Your task to perform on an android device: Open Google Chrome Image 0: 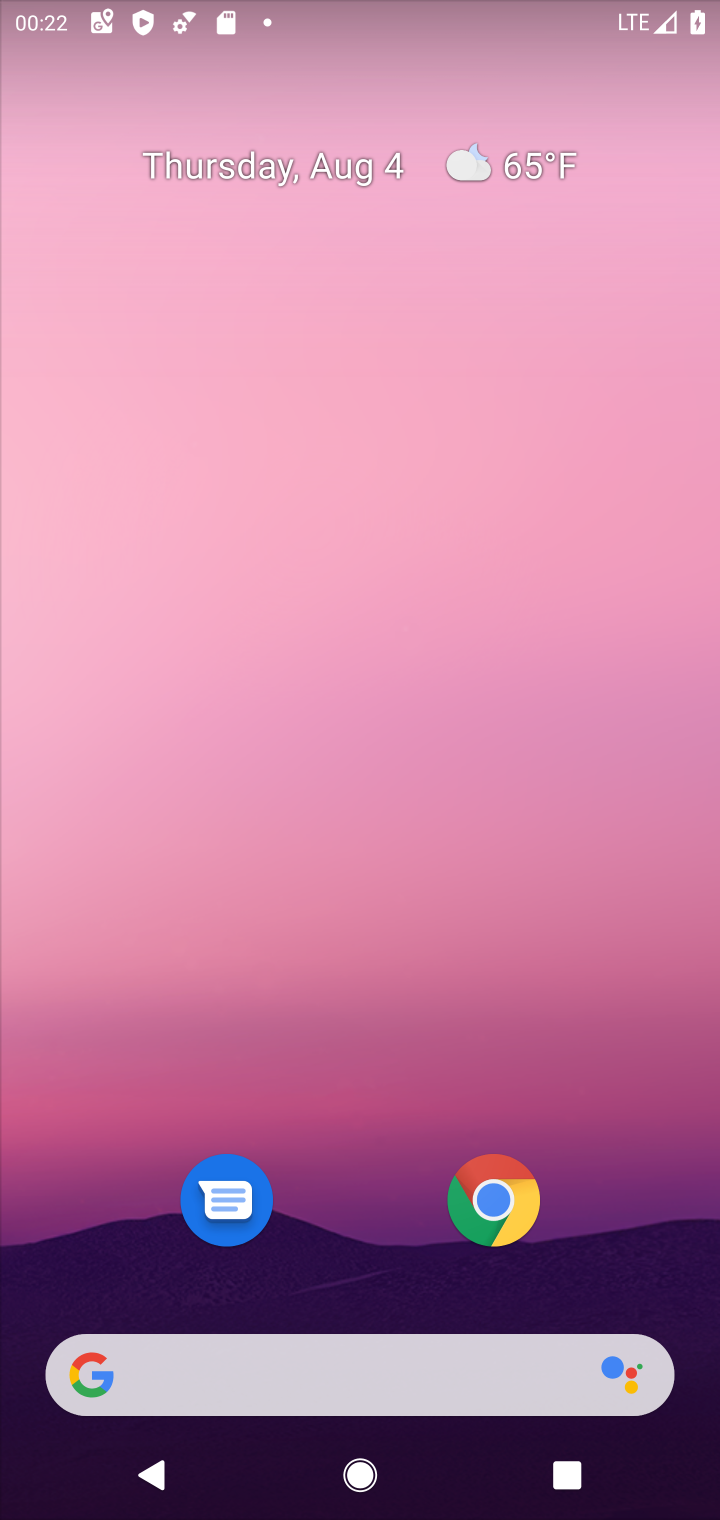
Step 0: press home button
Your task to perform on an android device: Open Google Chrome Image 1: 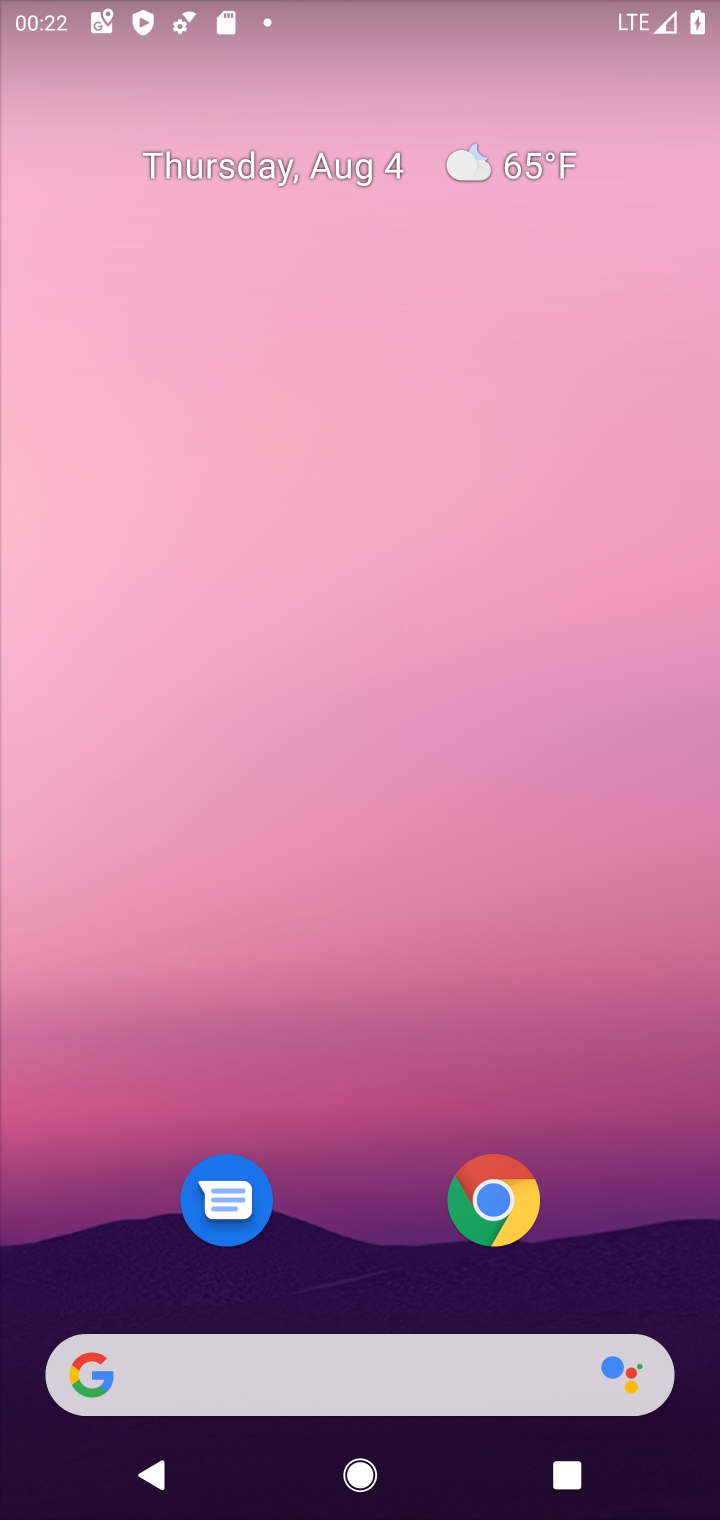
Step 1: press home button
Your task to perform on an android device: Open Google Chrome Image 2: 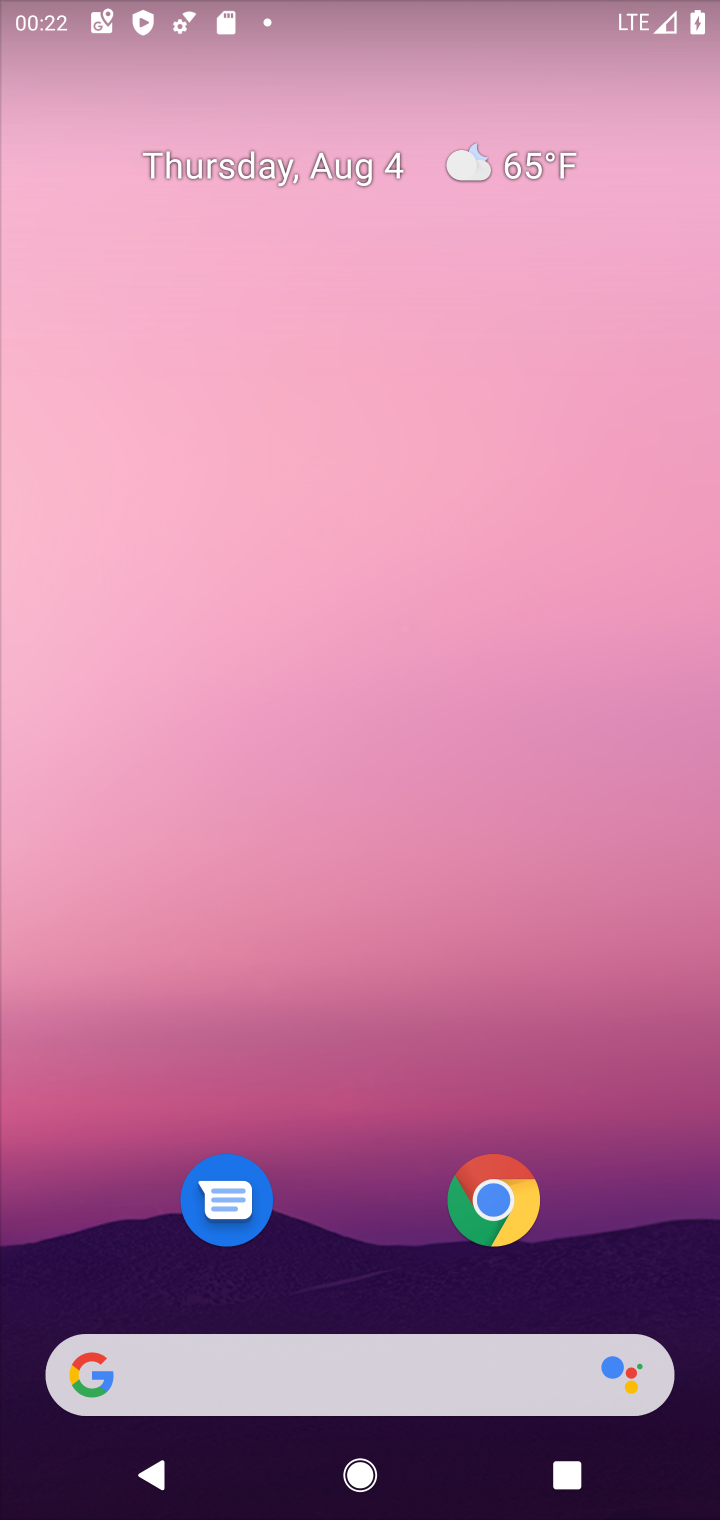
Step 2: press home button
Your task to perform on an android device: Open Google Chrome Image 3: 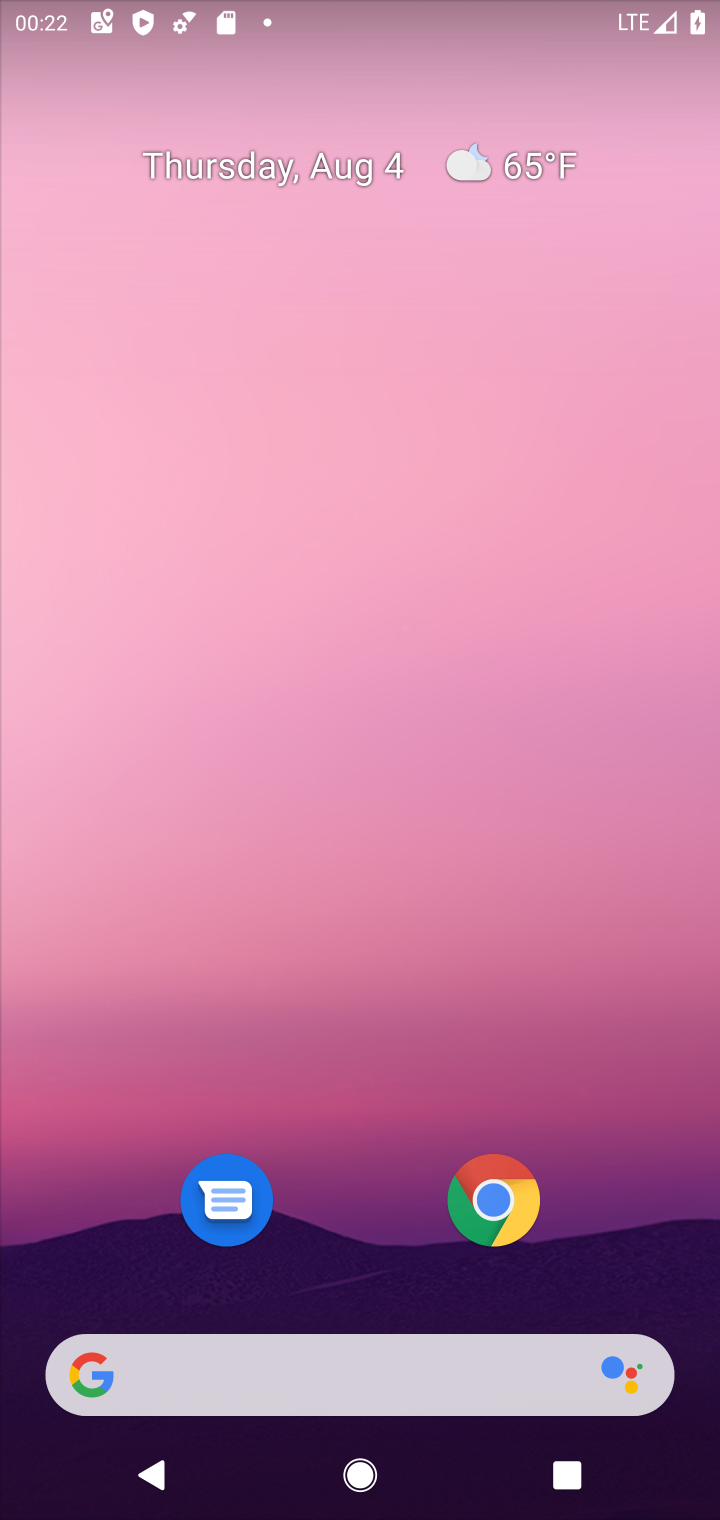
Step 3: click (506, 1202)
Your task to perform on an android device: Open Google Chrome Image 4: 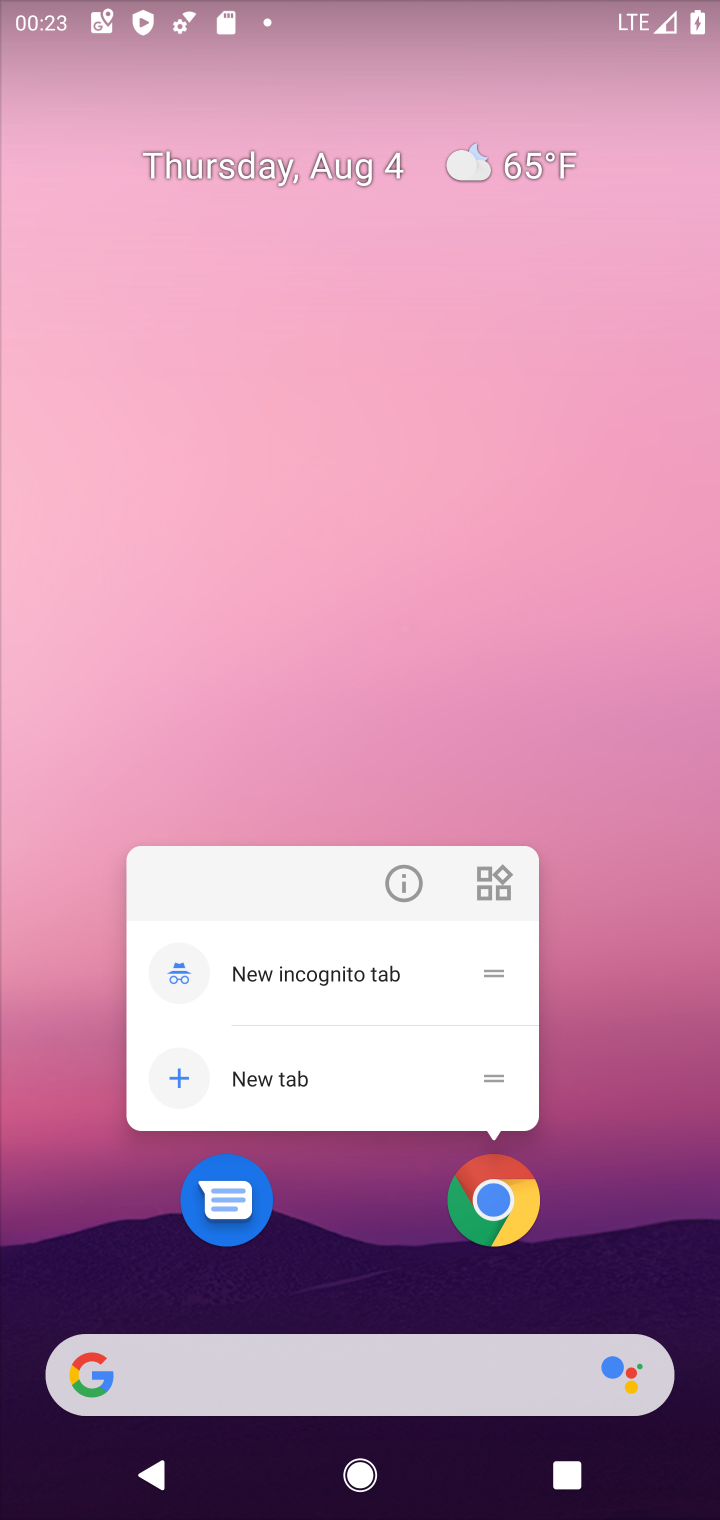
Step 4: click (495, 1208)
Your task to perform on an android device: Open Google Chrome Image 5: 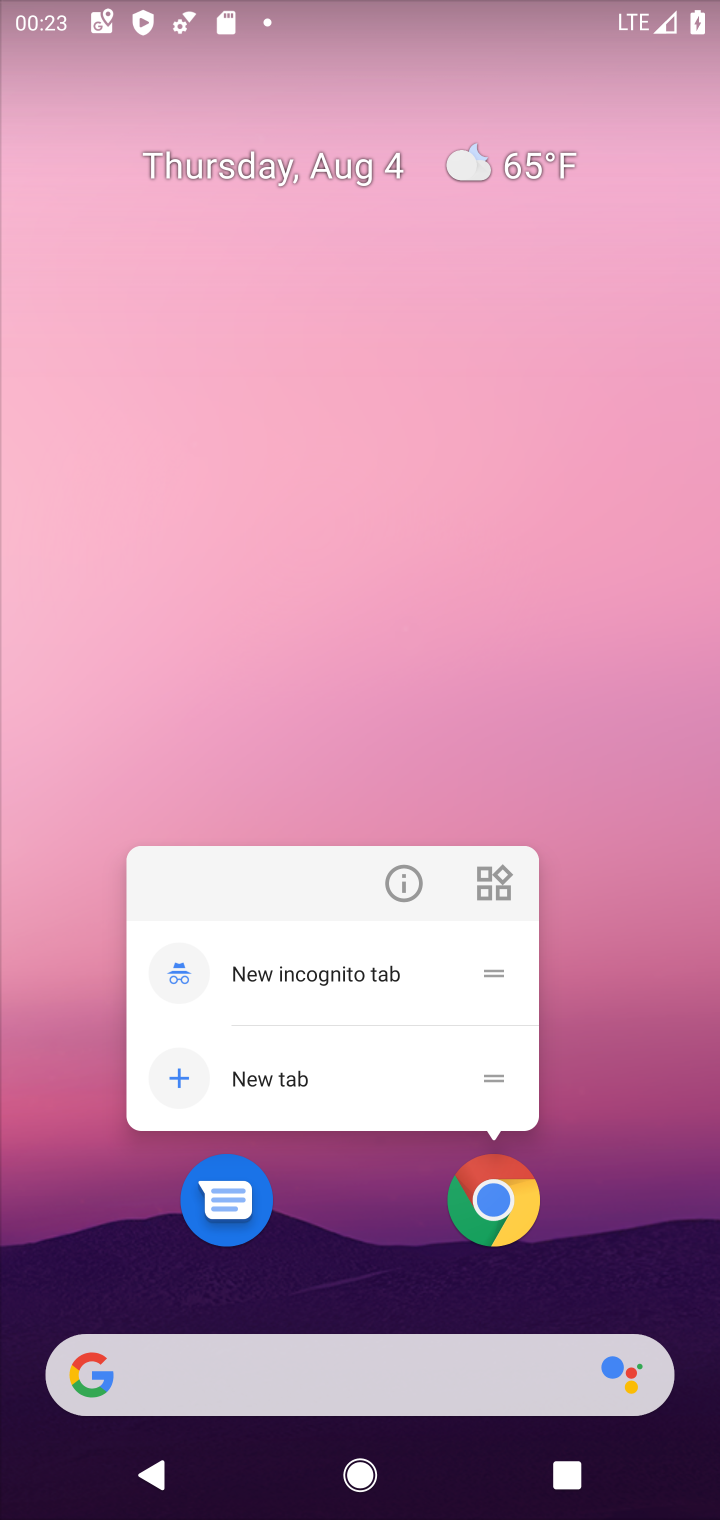
Step 5: click (510, 1176)
Your task to perform on an android device: Open Google Chrome Image 6: 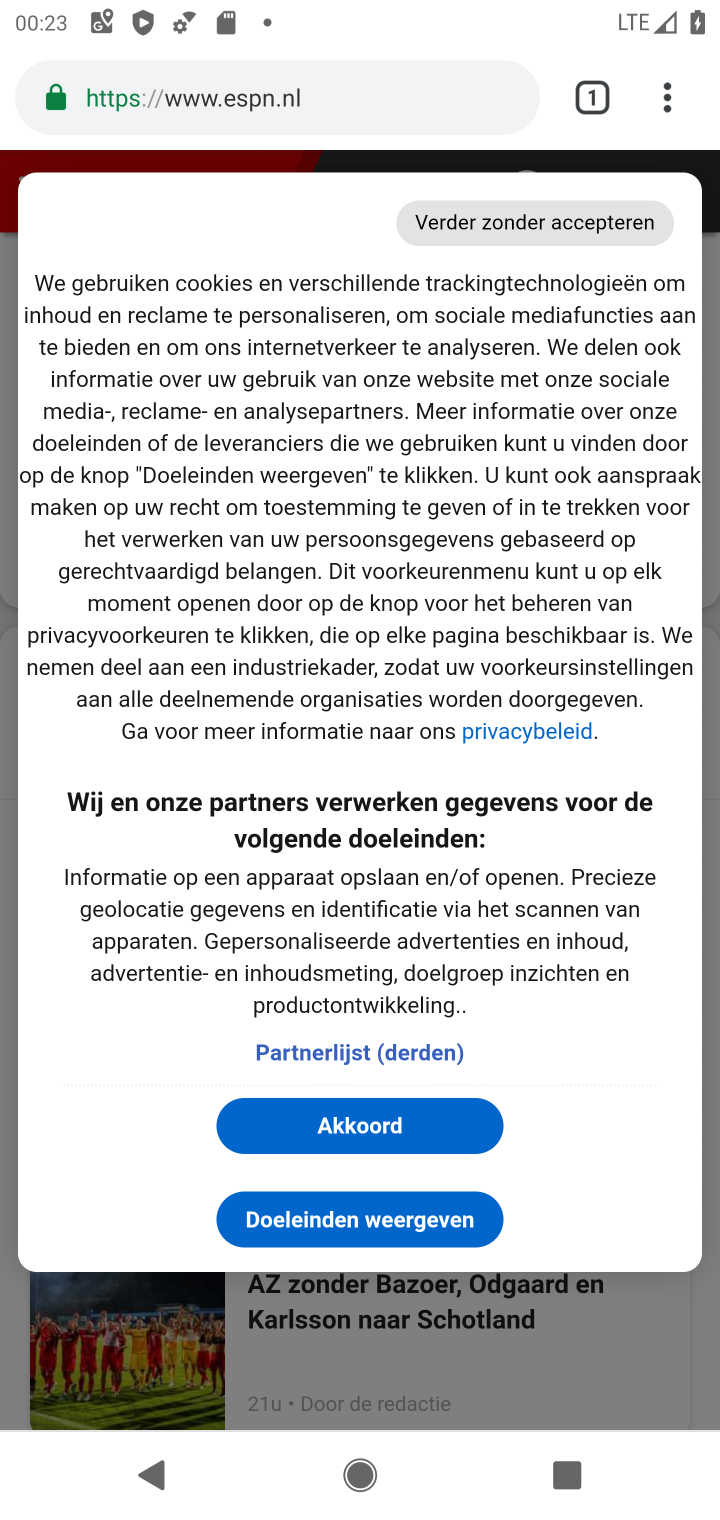
Step 6: task complete